Your task to perform on an android device: When is my next appointment? Image 0: 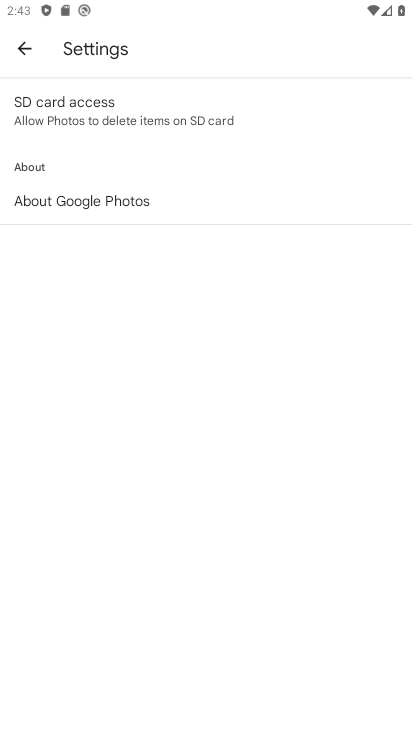
Step 0: press home button
Your task to perform on an android device: When is my next appointment? Image 1: 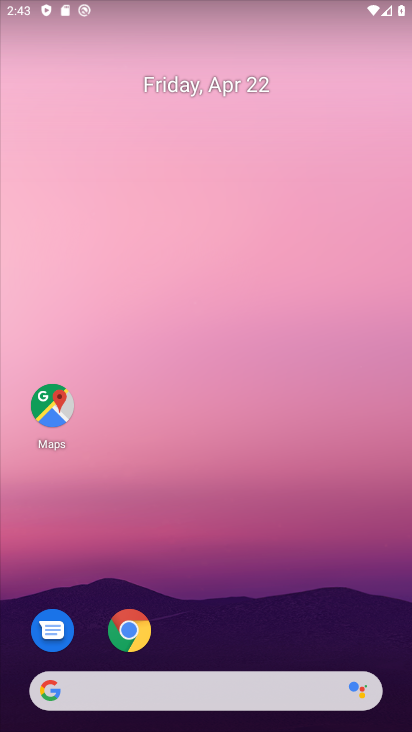
Step 1: drag from (343, 637) to (357, 162)
Your task to perform on an android device: When is my next appointment? Image 2: 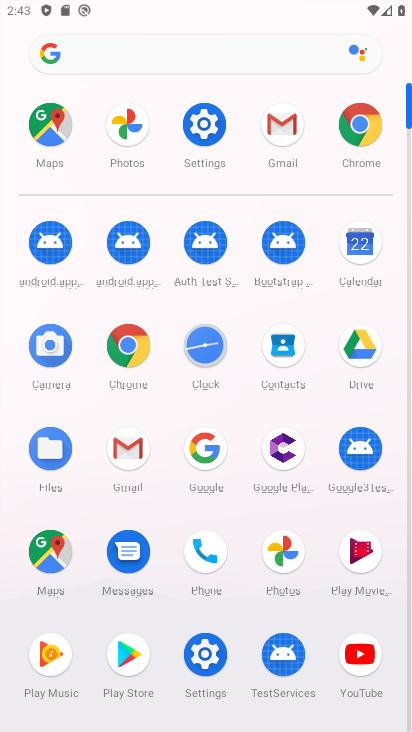
Step 2: click (369, 254)
Your task to perform on an android device: When is my next appointment? Image 3: 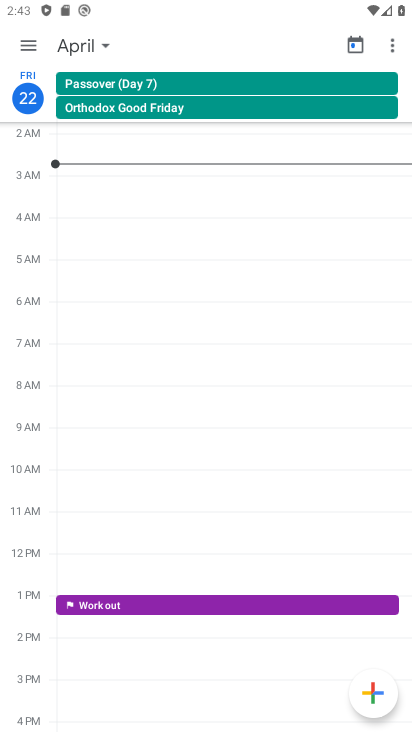
Step 3: click (33, 38)
Your task to perform on an android device: When is my next appointment? Image 4: 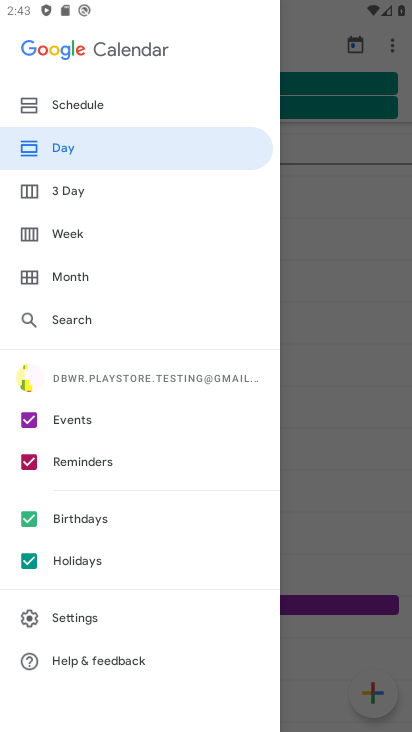
Step 4: click (84, 98)
Your task to perform on an android device: When is my next appointment? Image 5: 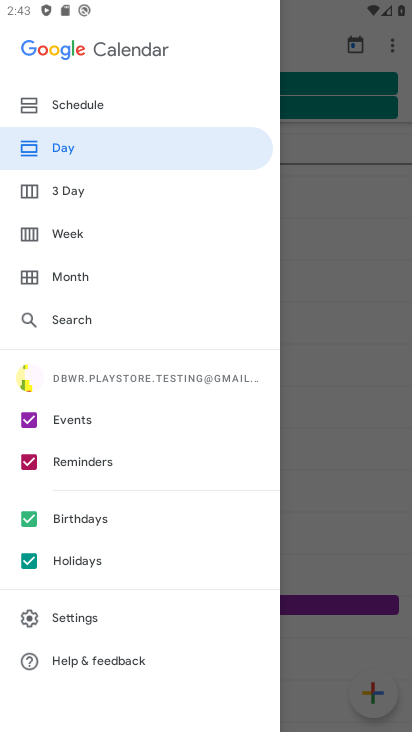
Step 5: click (81, 106)
Your task to perform on an android device: When is my next appointment? Image 6: 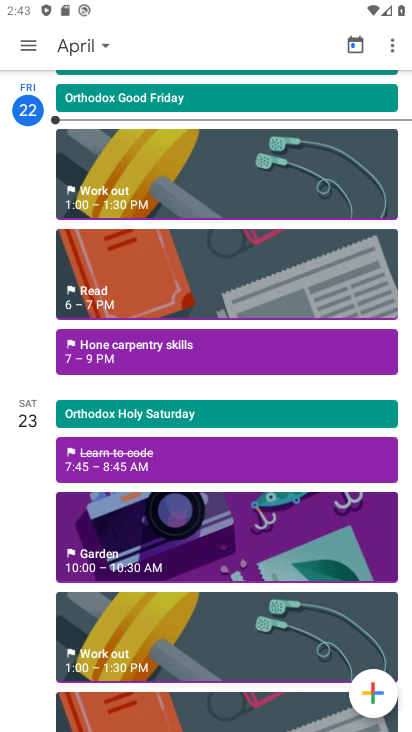
Step 6: drag from (73, 651) to (97, 338)
Your task to perform on an android device: When is my next appointment? Image 7: 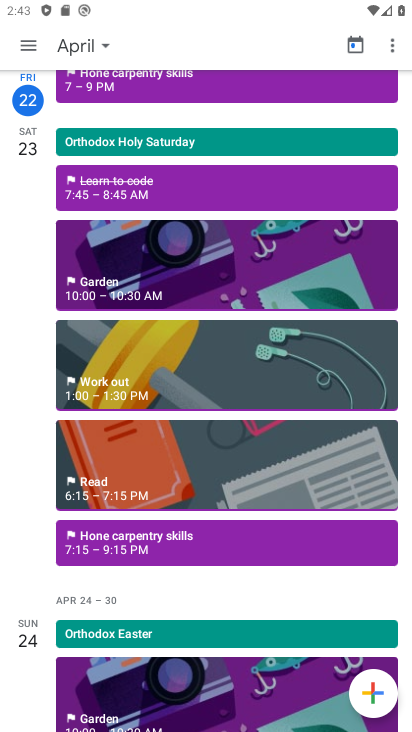
Step 7: drag from (93, 594) to (126, 362)
Your task to perform on an android device: When is my next appointment? Image 8: 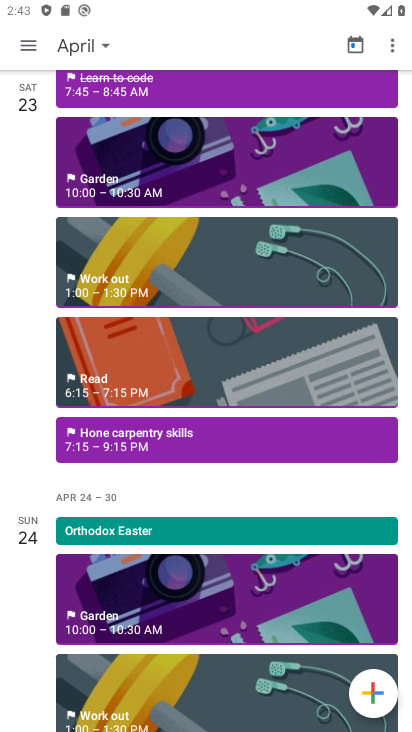
Step 8: drag from (67, 542) to (101, 375)
Your task to perform on an android device: When is my next appointment? Image 9: 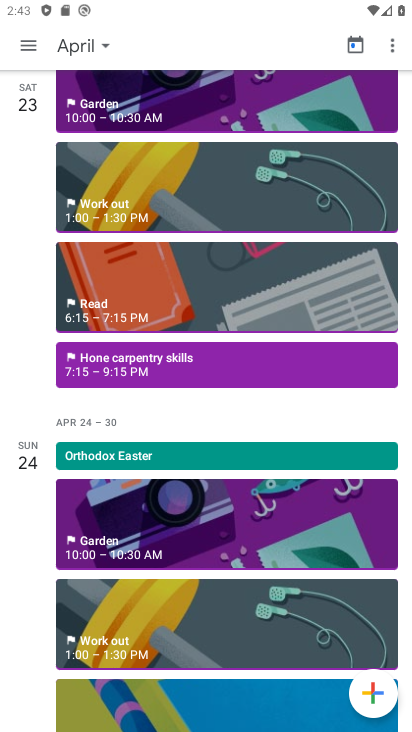
Step 9: drag from (110, 673) to (159, 395)
Your task to perform on an android device: When is my next appointment? Image 10: 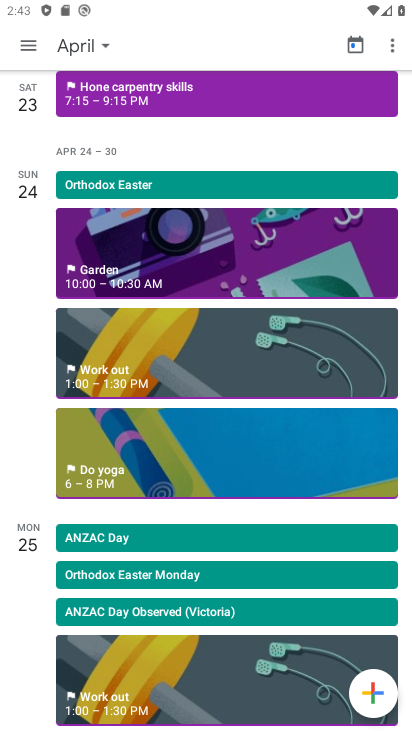
Step 10: drag from (69, 655) to (116, 332)
Your task to perform on an android device: When is my next appointment? Image 11: 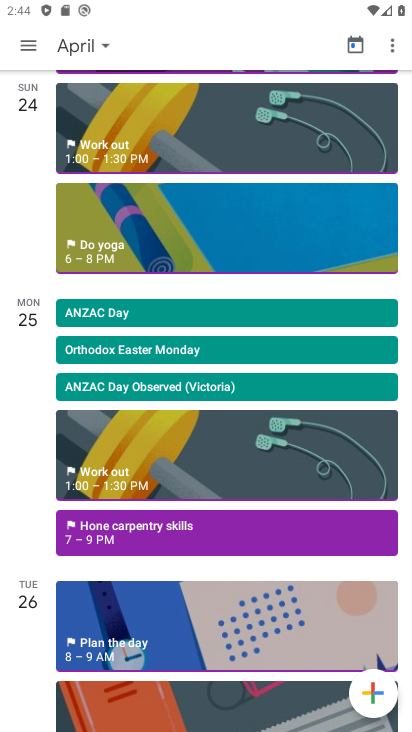
Step 11: drag from (117, 608) to (155, 322)
Your task to perform on an android device: When is my next appointment? Image 12: 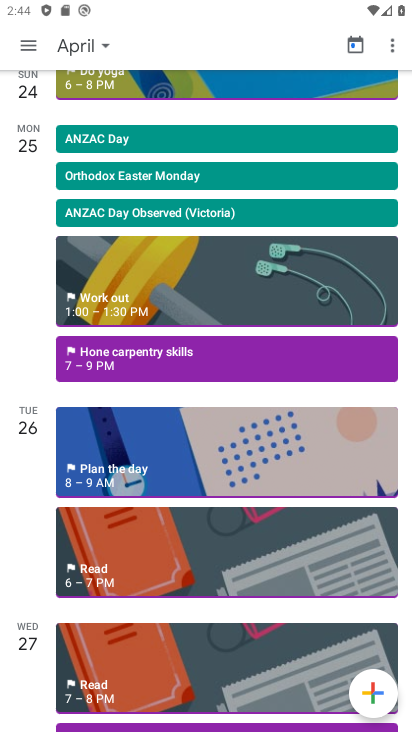
Step 12: drag from (80, 591) to (115, 257)
Your task to perform on an android device: When is my next appointment? Image 13: 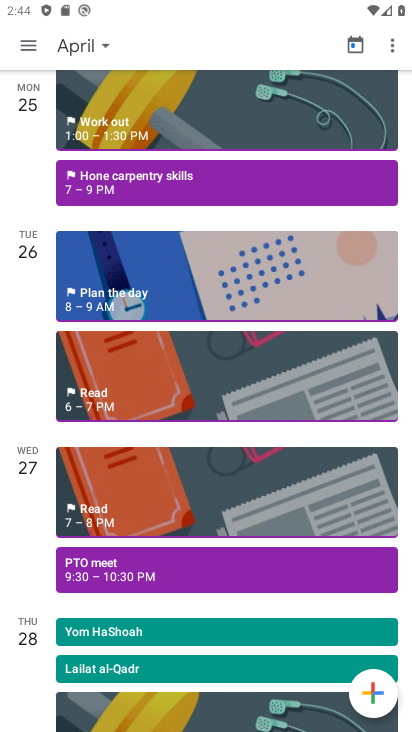
Step 13: click (98, 582)
Your task to perform on an android device: When is my next appointment? Image 14: 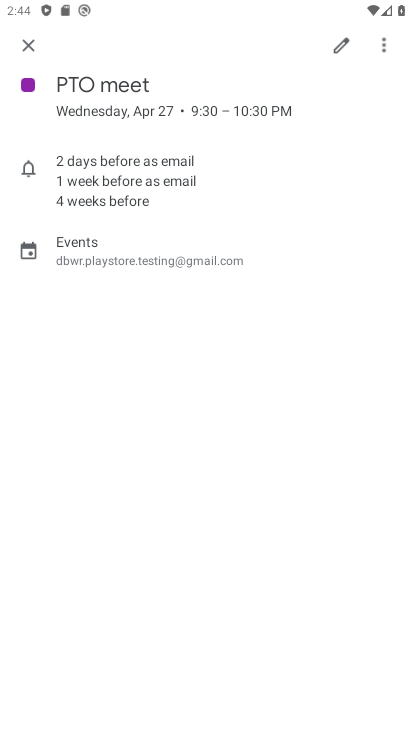
Step 14: task complete